Your task to perform on an android device: change the clock display to show seconds Image 0: 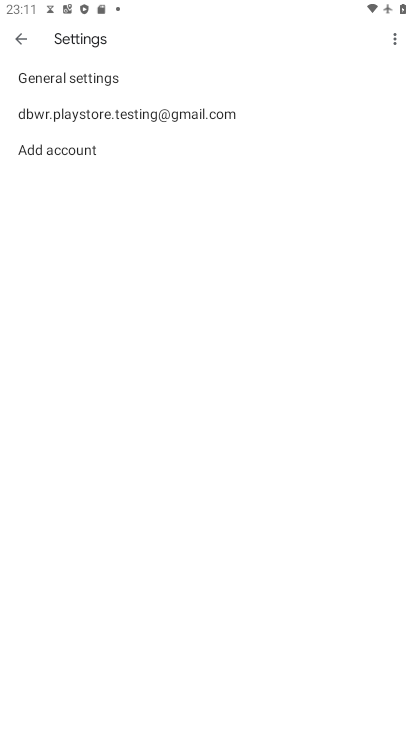
Step 0: press home button
Your task to perform on an android device: change the clock display to show seconds Image 1: 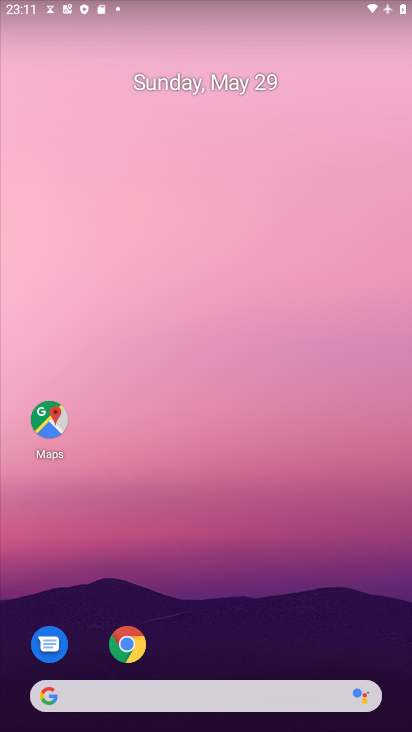
Step 1: drag from (254, 617) to (250, 243)
Your task to perform on an android device: change the clock display to show seconds Image 2: 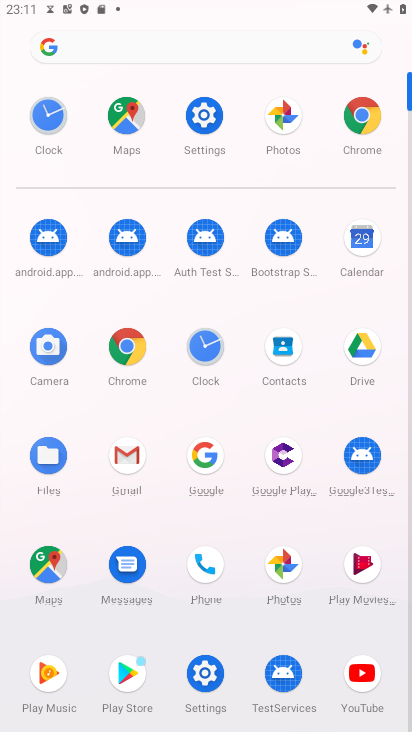
Step 2: click (198, 346)
Your task to perform on an android device: change the clock display to show seconds Image 3: 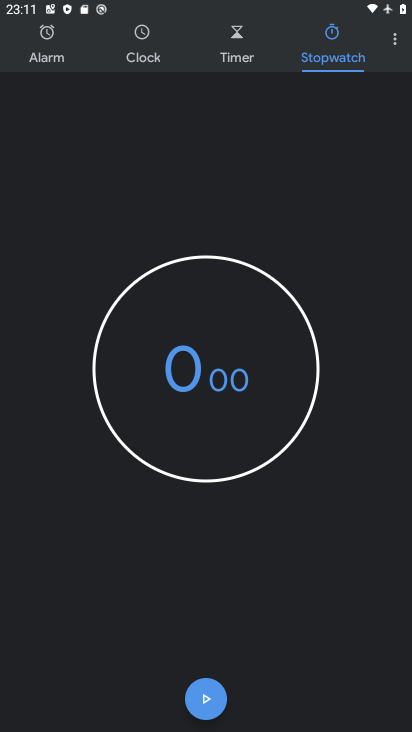
Step 3: click (392, 37)
Your task to perform on an android device: change the clock display to show seconds Image 4: 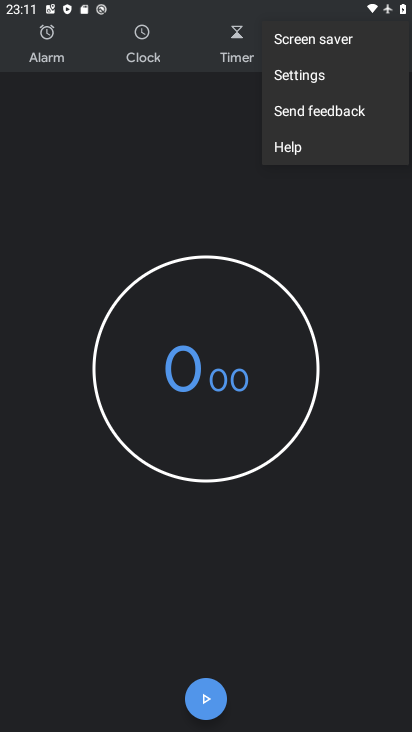
Step 4: click (343, 74)
Your task to perform on an android device: change the clock display to show seconds Image 5: 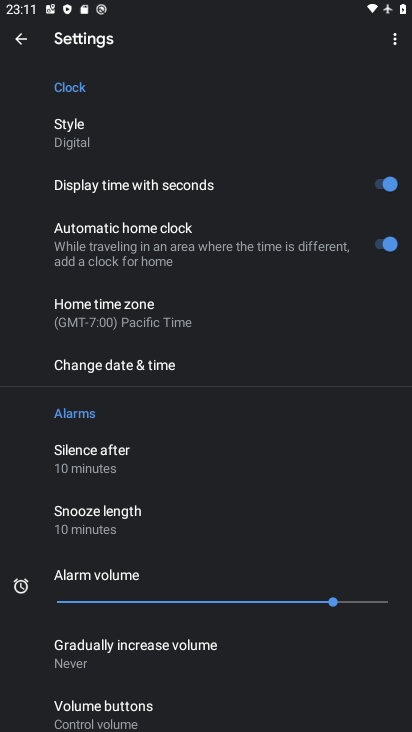
Step 5: task complete